Your task to perform on an android device: turn off notifications in google photos Image 0: 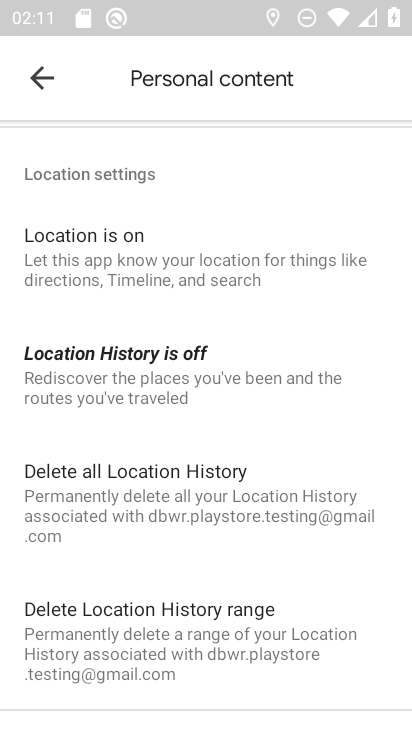
Step 0: press home button
Your task to perform on an android device: turn off notifications in google photos Image 1: 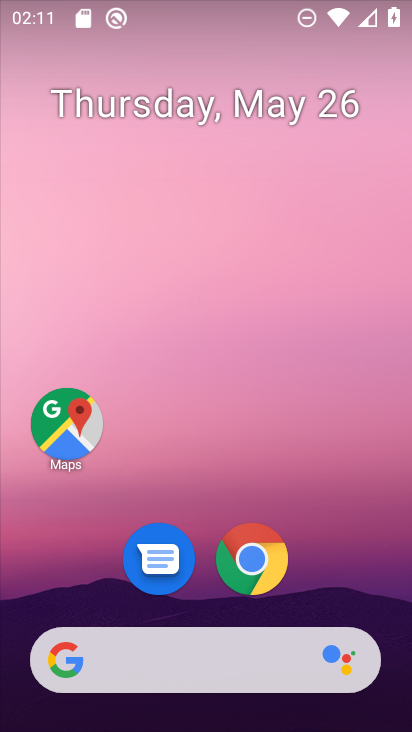
Step 1: drag from (182, 663) to (296, 214)
Your task to perform on an android device: turn off notifications in google photos Image 2: 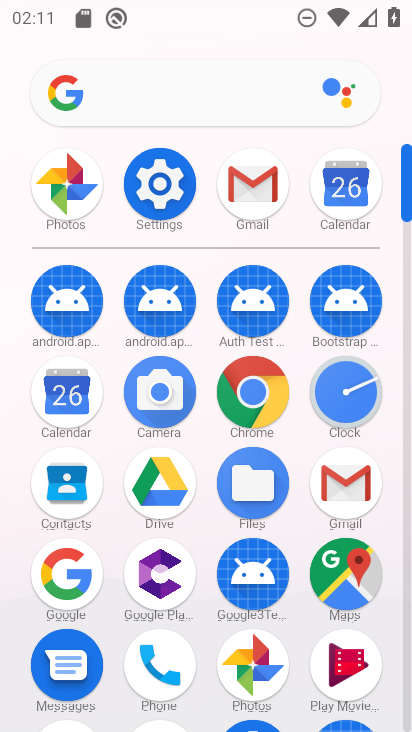
Step 2: click (247, 656)
Your task to perform on an android device: turn off notifications in google photos Image 3: 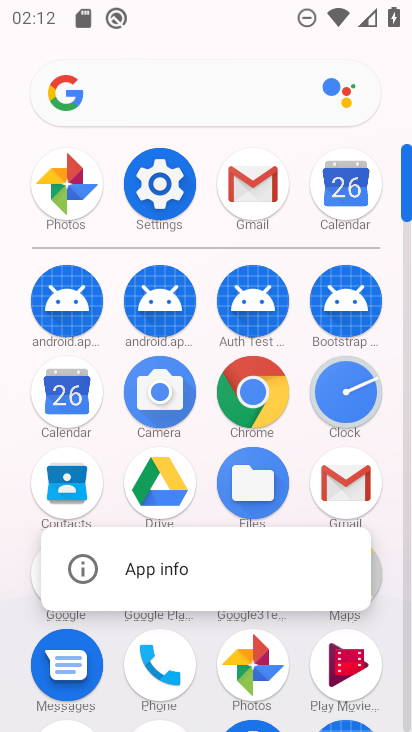
Step 3: click (243, 663)
Your task to perform on an android device: turn off notifications in google photos Image 4: 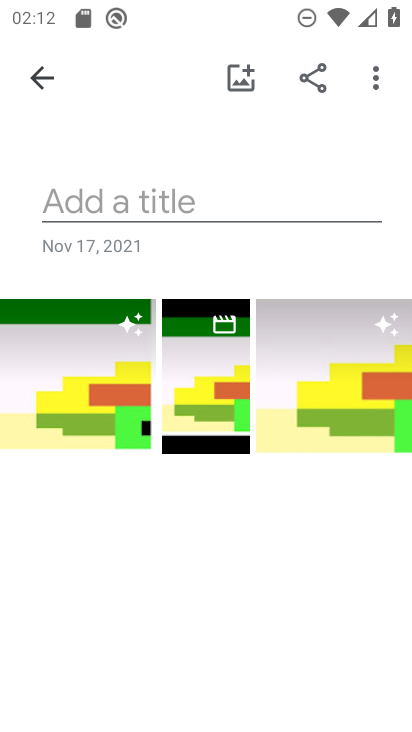
Step 4: click (48, 70)
Your task to perform on an android device: turn off notifications in google photos Image 5: 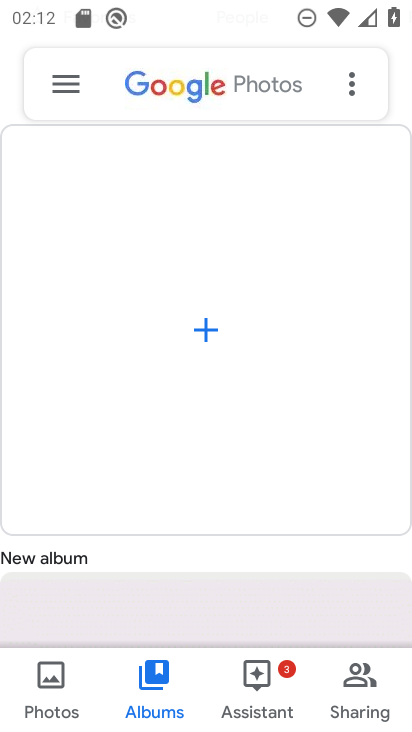
Step 5: click (69, 85)
Your task to perform on an android device: turn off notifications in google photos Image 6: 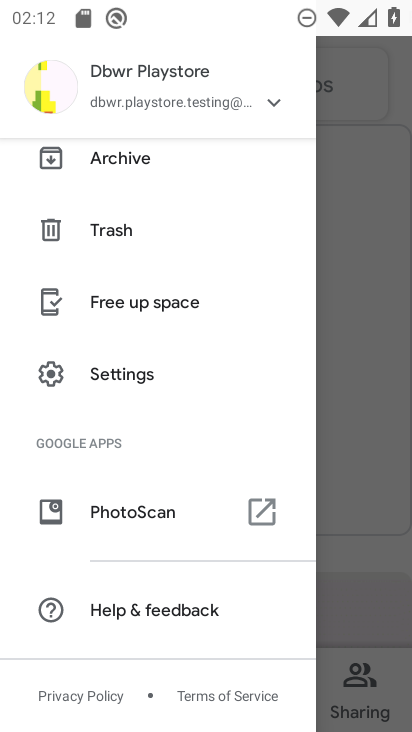
Step 6: drag from (156, 563) to (156, 225)
Your task to perform on an android device: turn off notifications in google photos Image 7: 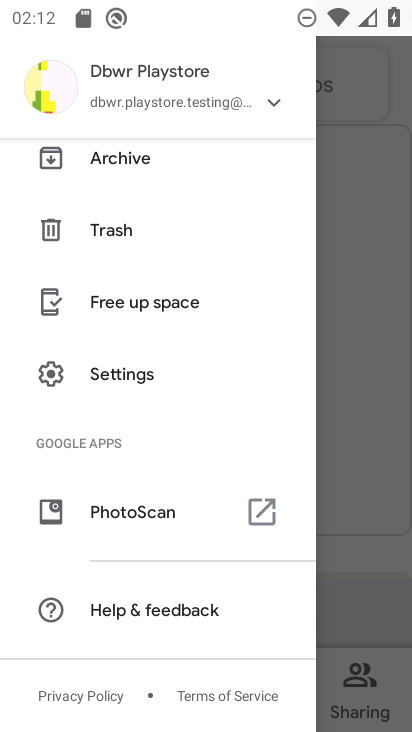
Step 7: click (135, 363)
Your task to perform on an android device: turn off notifications in google photos Image 8: 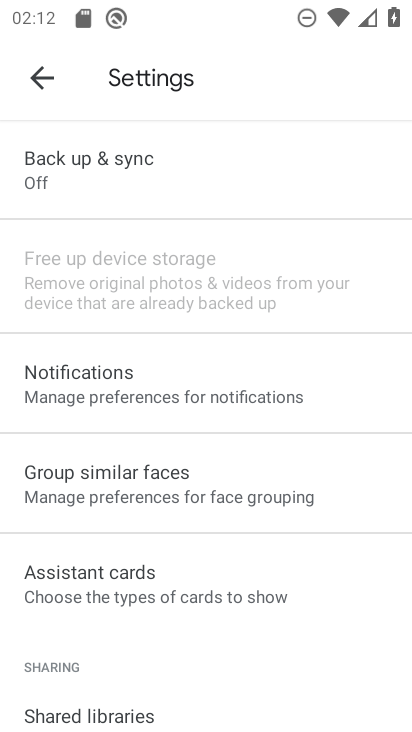
Step 8: click (125, 392)
Your task to perform on an android device: turn off notifications in google photos Image 9: 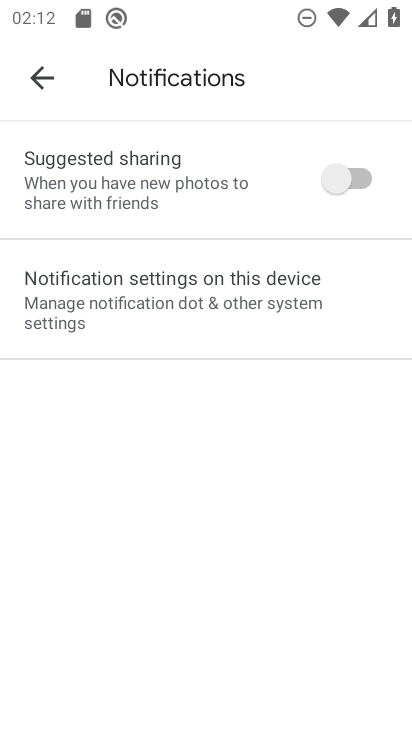
Step 9: click (141, 264)
Your task to perform on an android device: turn off notifications in google photos Image 10: 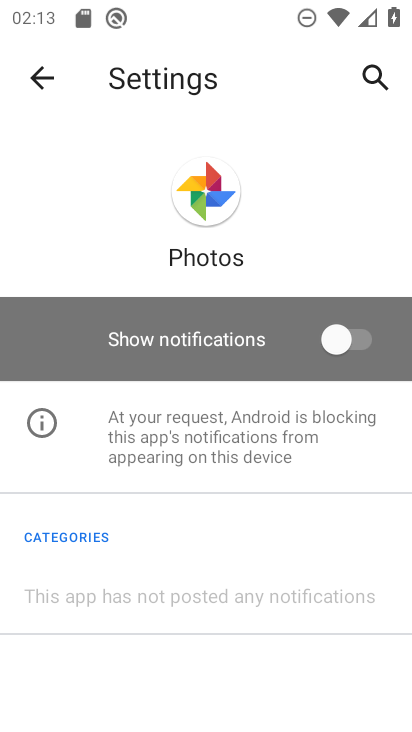
Step 10: task complete